Your task to perform on an android device: Open calendar and show me the second week of next month Image 0: 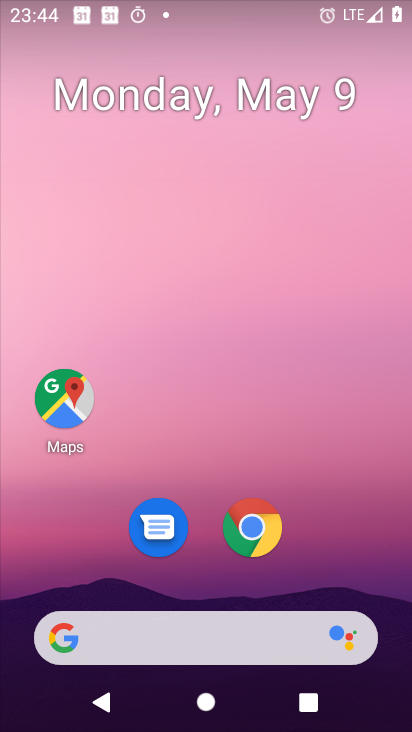
Step 0: drag from (216, 572) to (201, 49)
Your task to perform on an android device: Open calendar and show me the second week of next month Image 1: 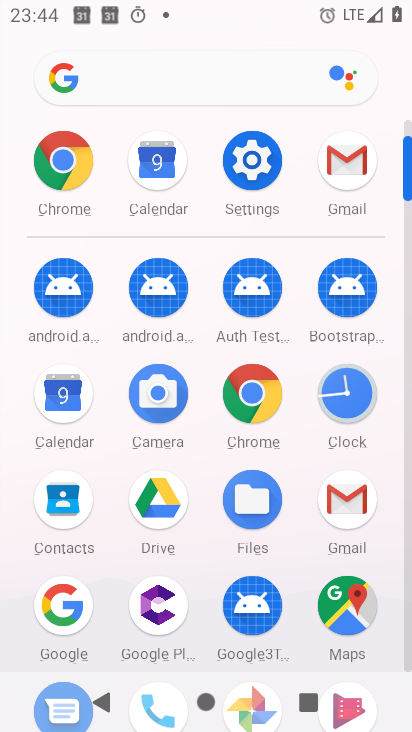
Step 1: click (63, 402)
Your task to perform on an android device: Open calendar and show me the second week of next month Image 2: 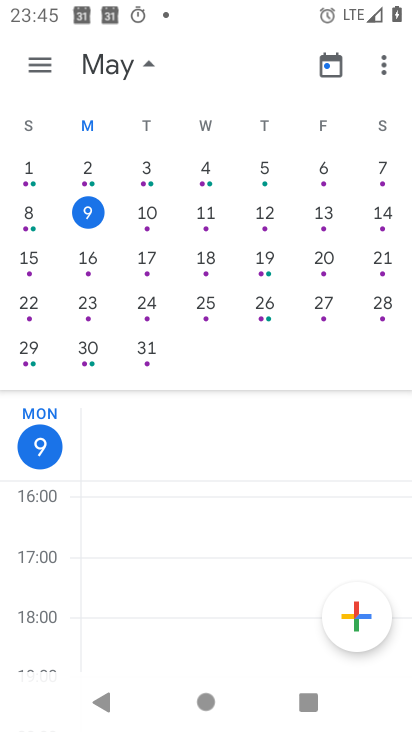
Step 2: drag from (339, 357) to (0, 260)
Your task to perform on an android device: Open calendar and show me the second week of next month Image 3: 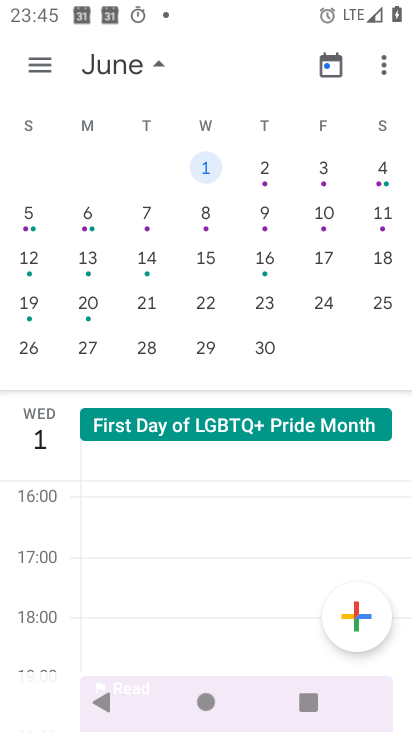
Step 3: click (274, 216)
Your task to perform on an android device: Open calendar and show me the second week of next month Image 4: 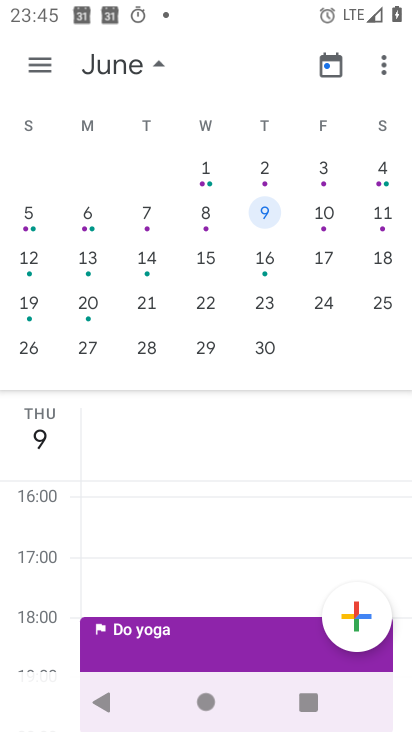
Step 4: task complete